Your task to perform on an android device: open a bookmark in the chrome app Image 0: 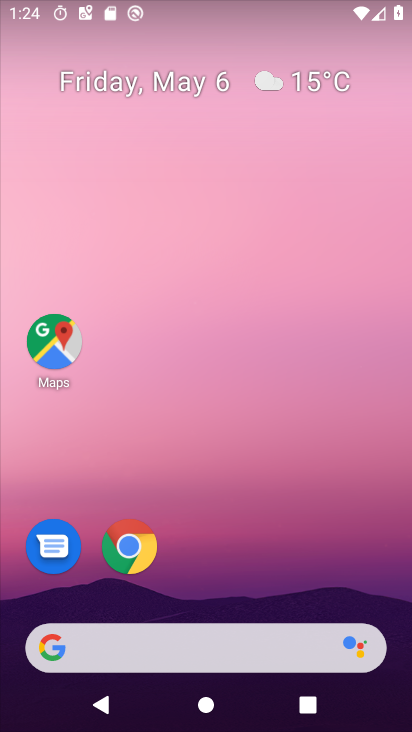
Step 0: click (127, 545)
Your task to perform on an android device: open a bookmark in the chrome app Image 1: 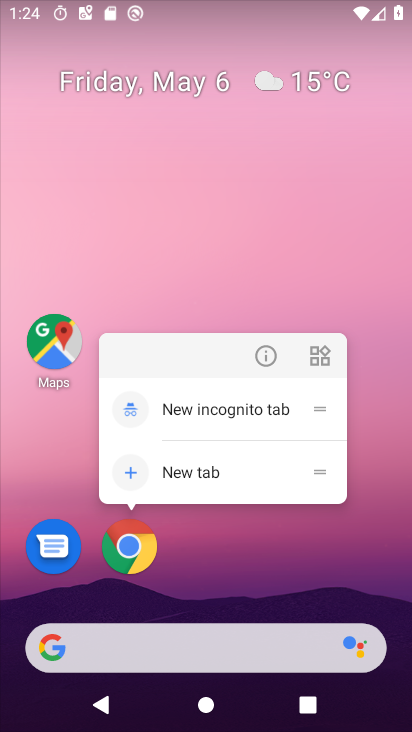
Step 1: click (125, 542)
Your task to perform on an android device: open a bookmark in the chrome app Image 2: 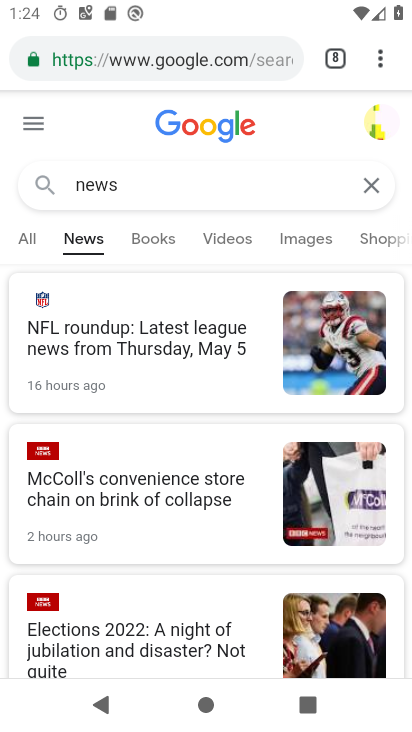
Step 2: click (377, 60)
Your task to perform on an android device: open a bookmark in the chrome app Image 3: 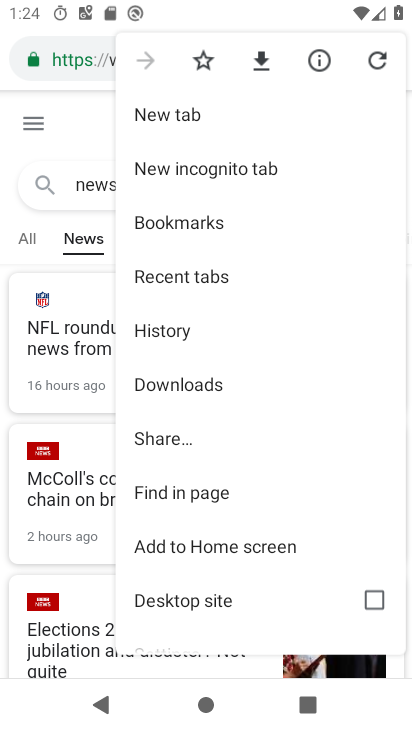
Step 3: click (199, 227)
Your task to perform on an android device: open a bookmark in the chrome app Image 4: 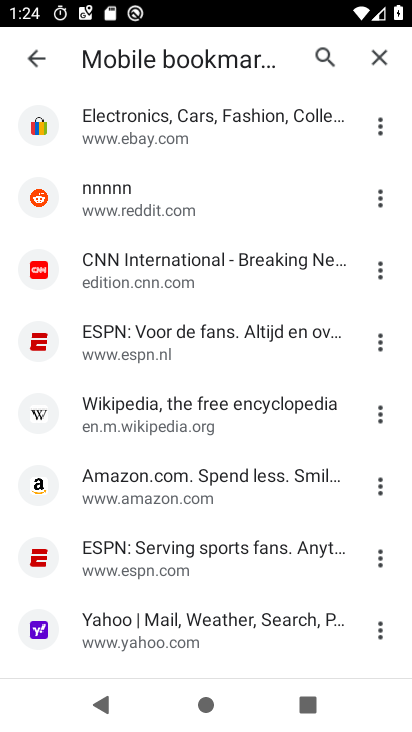
Step 4: click (173, 345)
Your task to perform on an android device: open a bookmark in the chrome app Image 5: 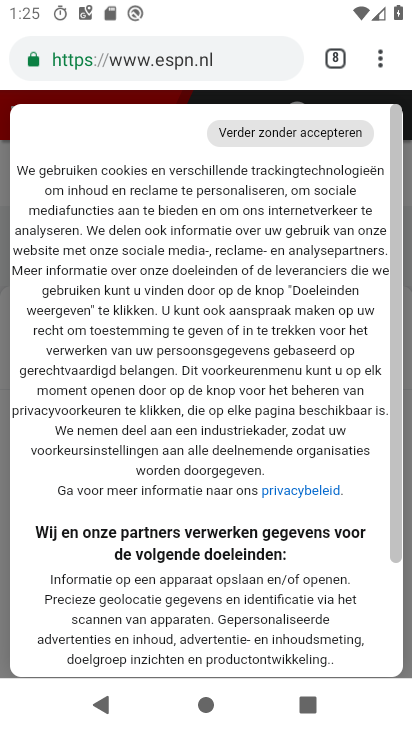
Step 5: task complete